Your task to perform on an android device: empty trash in google photos Image 0: 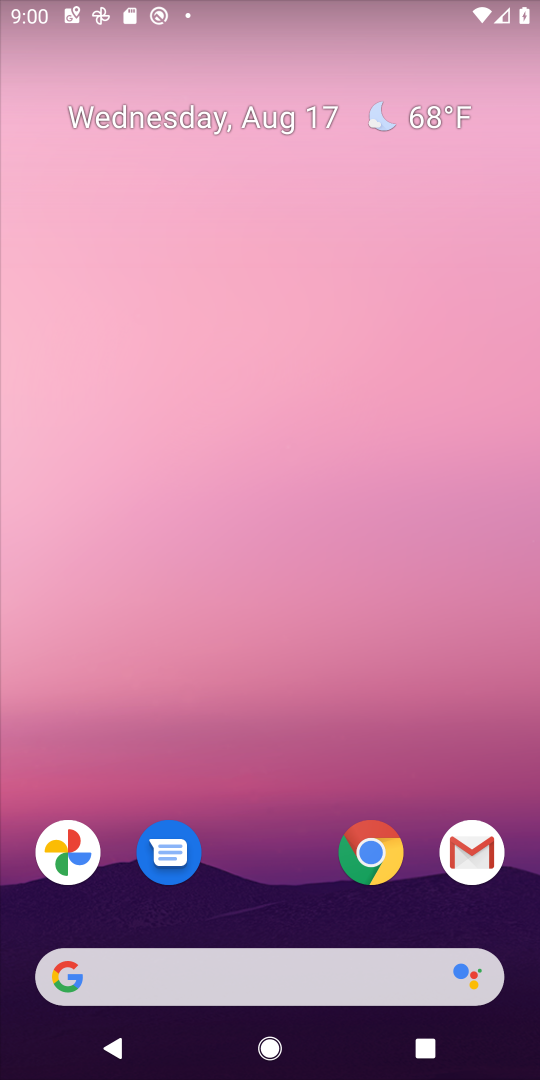
Step 0: click (54, 848)
Your task to perform on an android device: empty trash in google photos Image 1: 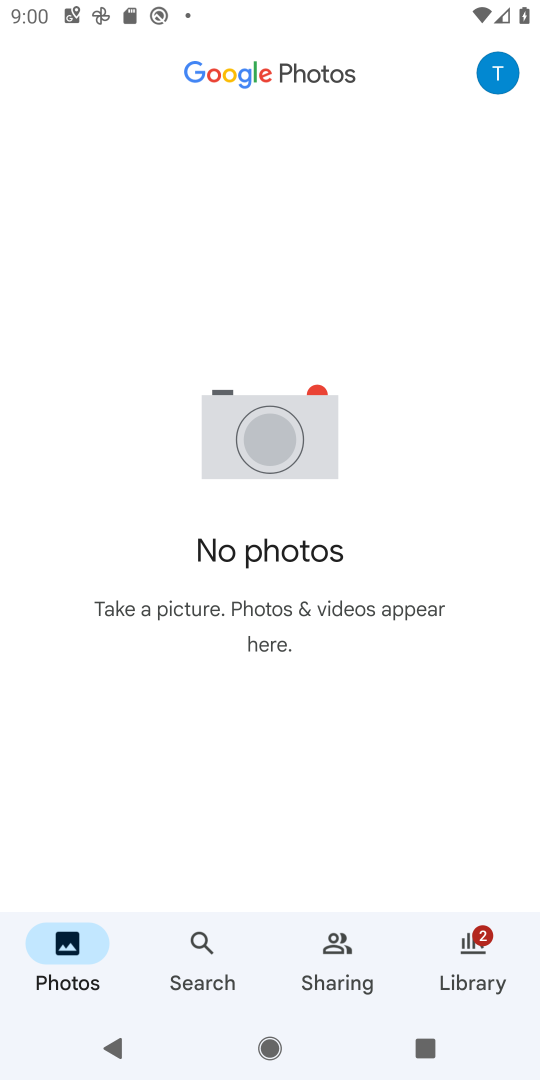
Step 1: click (479, 945)
Your task to perform on an android device: empty trash in google photos Image 2: 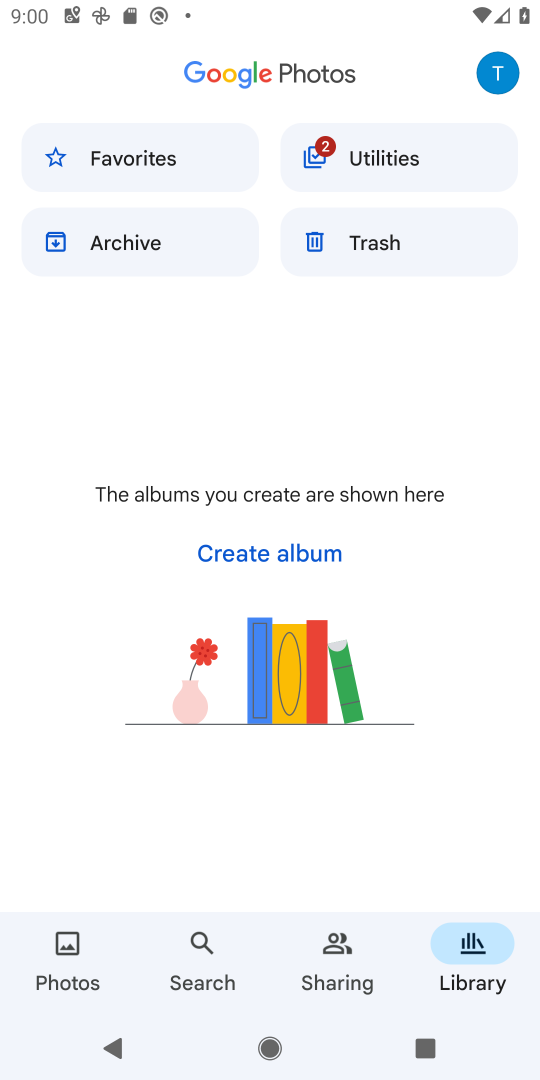
Step 2: click (352, 244)
Your task to perform on an android device: empty trash in google photos Image 3: 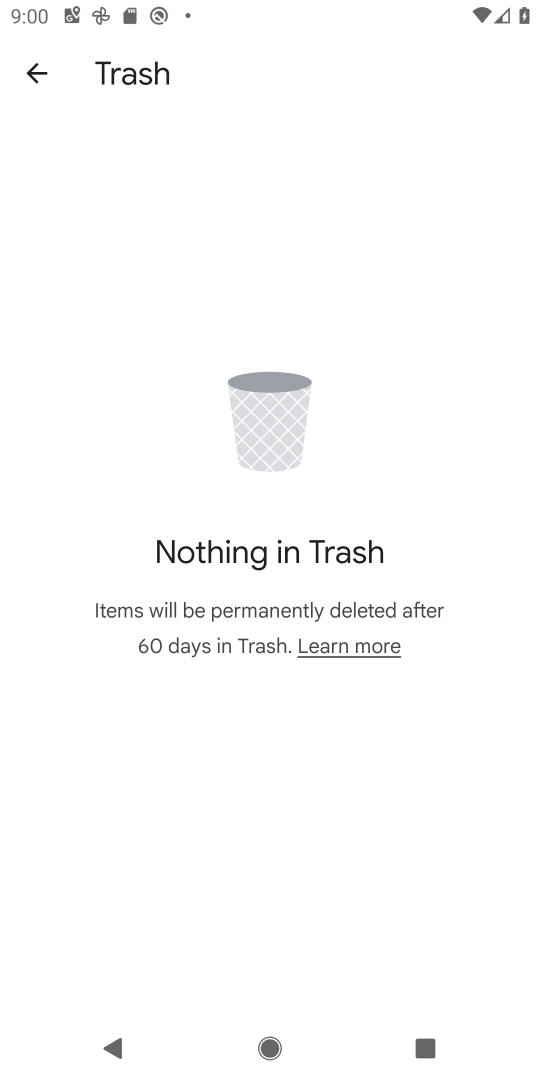
Step 3: task complete